Your task to perform on an android device: toggle data saver in the chrome app Image 0: 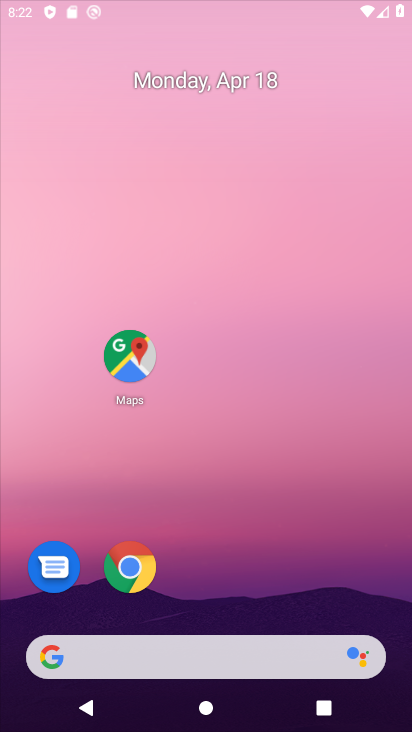
Step 0: click (378, 365)
Your task to perform on an android device: toggle data saver in the chrome app Image 1: 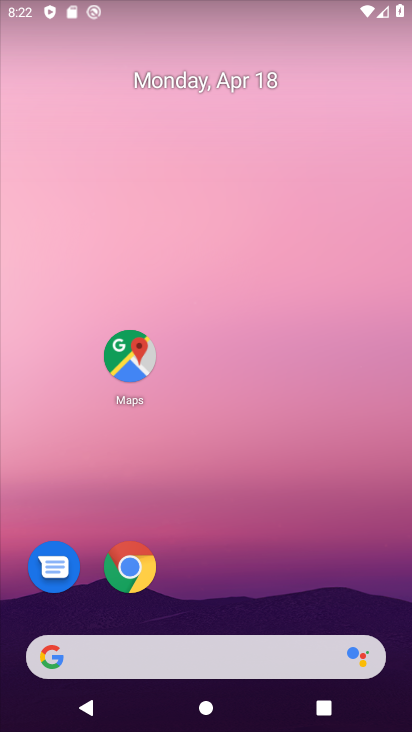
Step 1: click (135, 590)
Your task to perform on an android device: toggle data saver in the chrome app Image 2: 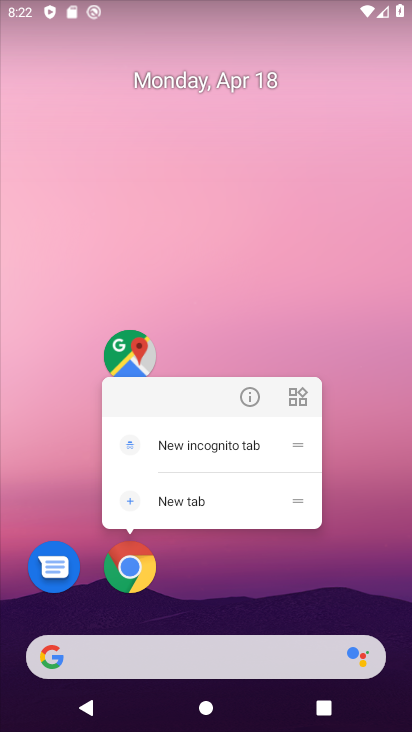
Step 2: click (137, 596)
Your task to perform on an android device: toggle data saver in the chrome app Image 3: 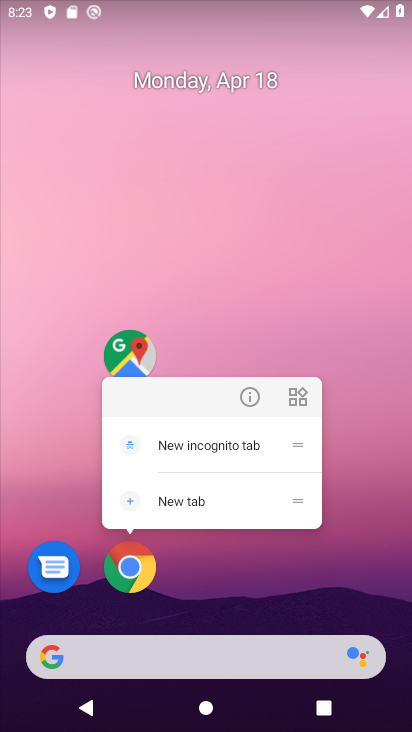
Step 3: click (208, 594)
Your task to perform on an android device: toggle data saver in the chrome app Image 4: 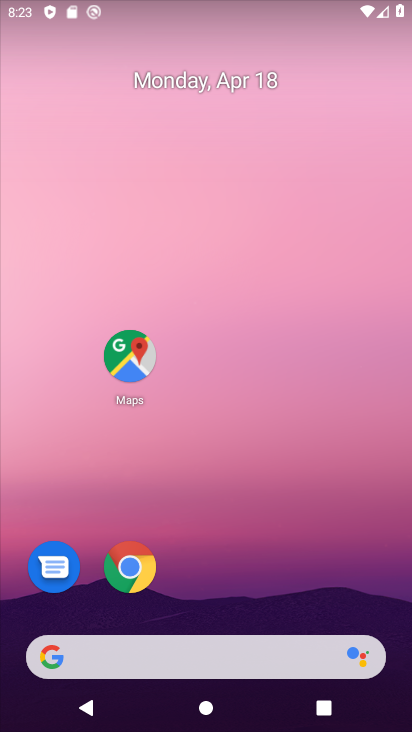
Step 4: click (139, 569)
Your task to perform on an android device: toggle data saver in the chrome app Image 5: 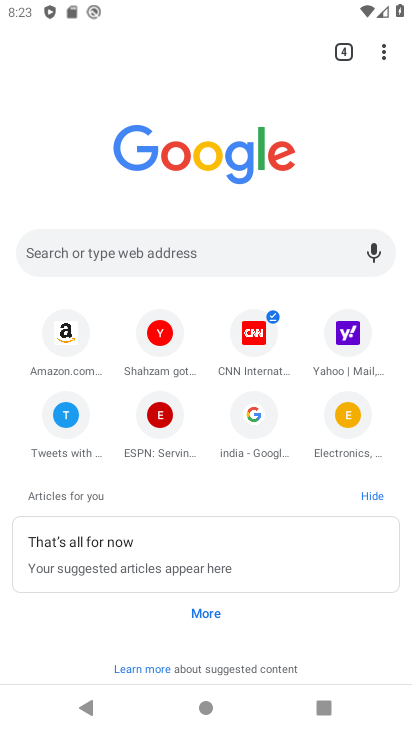
Step 5: click (385, 59)
Your task to perform on an android device: toggle data saver in the chrome app Image 6: 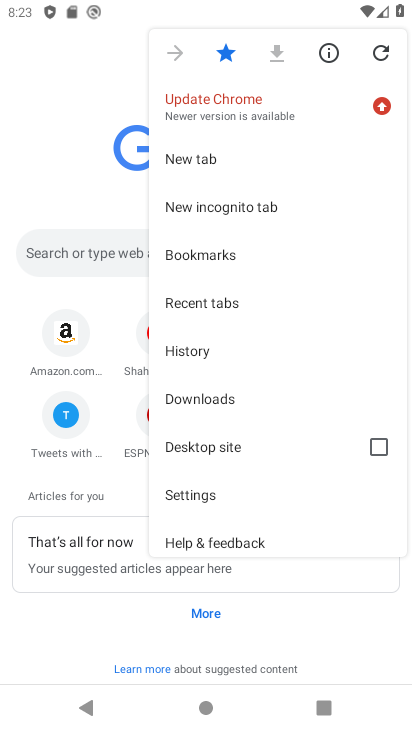
Step 6: click (201, 503)
Your task to perform on an android device: toggle data saver in the chrome app Image 7: 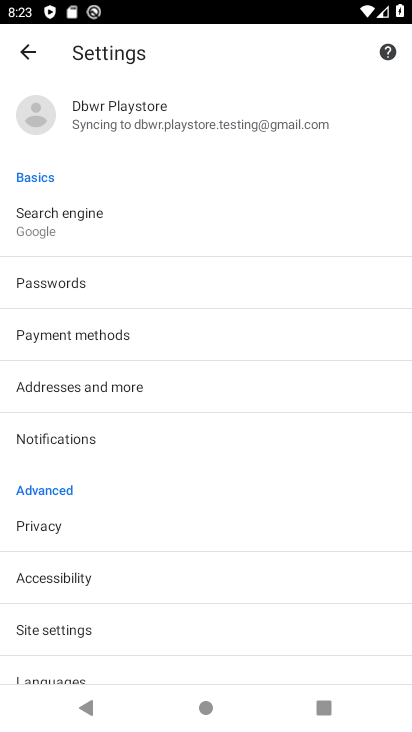
Step 7: click (54, 632)
Your task to perform on an android device: toggle data saver in the chrome app Image 8: 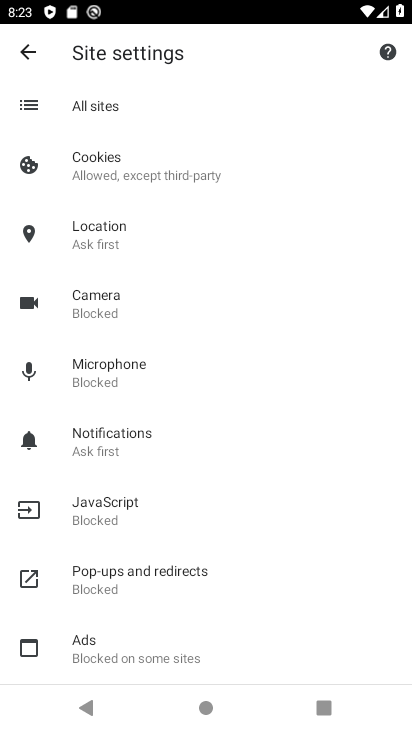
Step 8: click (78, 720)
Your task to perform on an android device: toggle data saver in the chrome app Image 9: 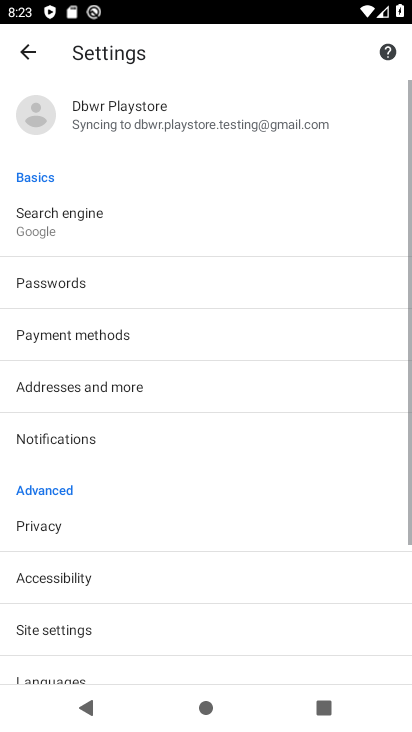
Step 9: drag from (141, 643) to (127, 404)
Your task to perform on an android device: toggle data saver in the chrome app Image 10: 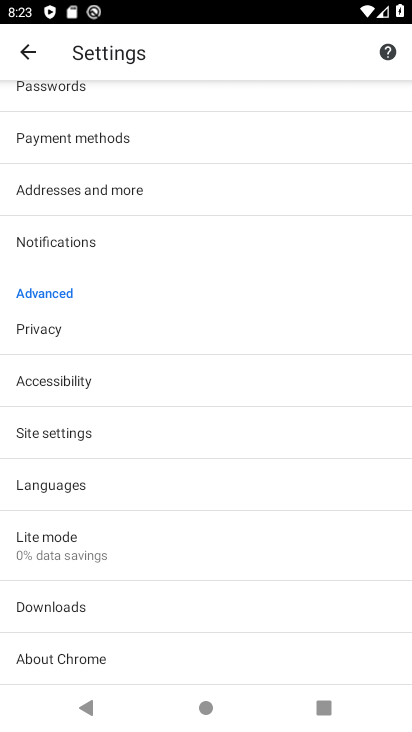
Step 10: click (66, 540)
Your task to perform on an android device: toggle data saver in the chrome app Image 11: 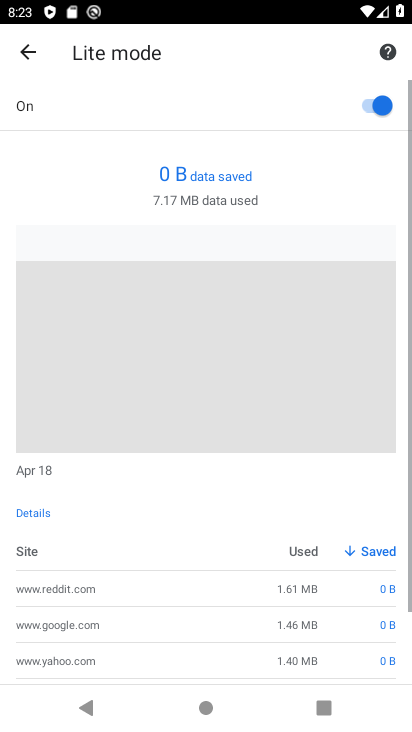
Step 11: task complete